Your task to perform on an android device: Open Google Maps Image 0: 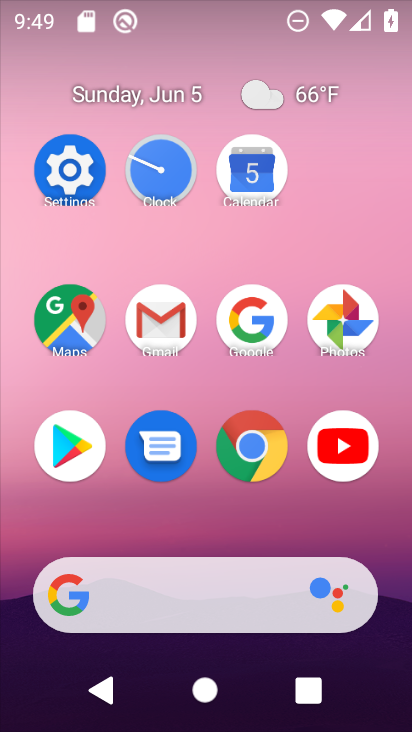
Step 0: click (61, 319)
Your task to perform on an android device: Open Google Maps Image 1: 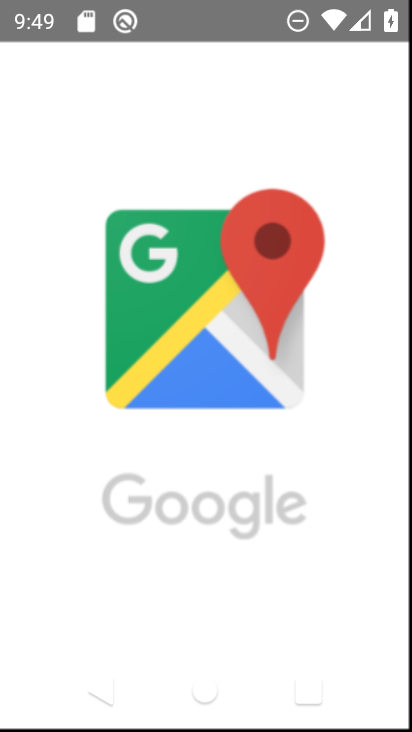
Step 1: task complete